Your task to perform on an android device: open app "DuckDuckGo Privacy Browser" (install if not already installed) and go to login screen Image 0: 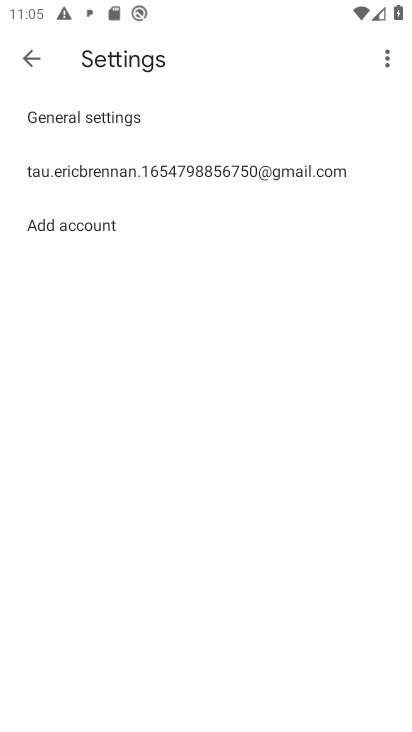
Step 0: press home button
Your task to perform on an android device: open app "DuckDuckGo Privacy Browser" (install if not already installed) and go to login screen Image 1: 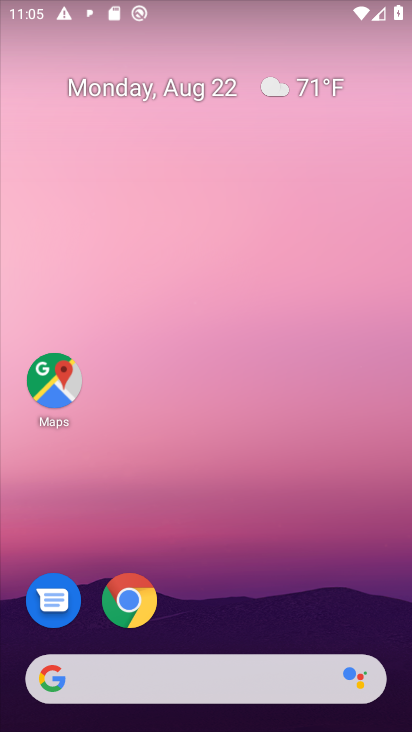
Step 1: drag from (220, 582) to (202, 193)
Your task to perform on an android device: open app "DuckDuckGo Privacy Browser" (install if not already installed) and go to login screen Image 2: 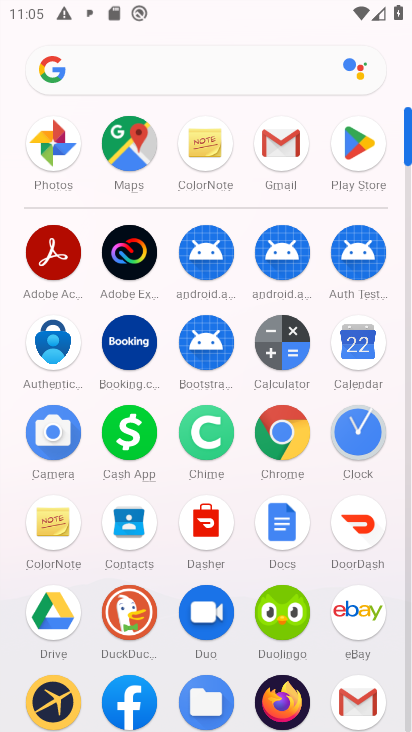
Step 2: click (340, 162)
Your task to perform on an android device: open app "DuckDuckGo Privacy Browser" (install if not already installed) and go to login screen Image 3: 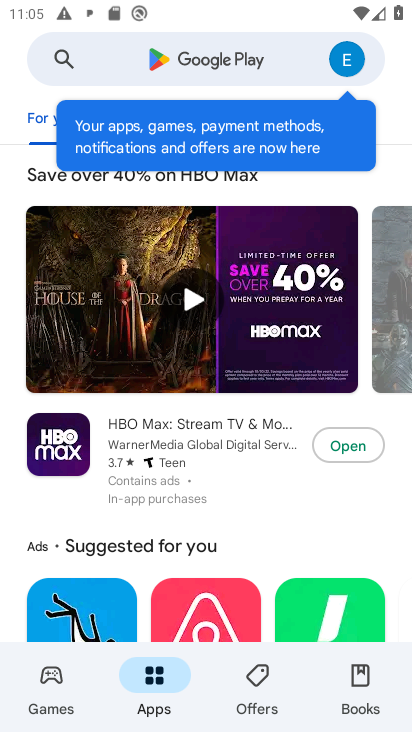
Step 3: click (249, 50)
Your task to perform on an android device: open app "DuckDuckGo Privacy Browser" (install if not already installed) and go to login screen Image 4: 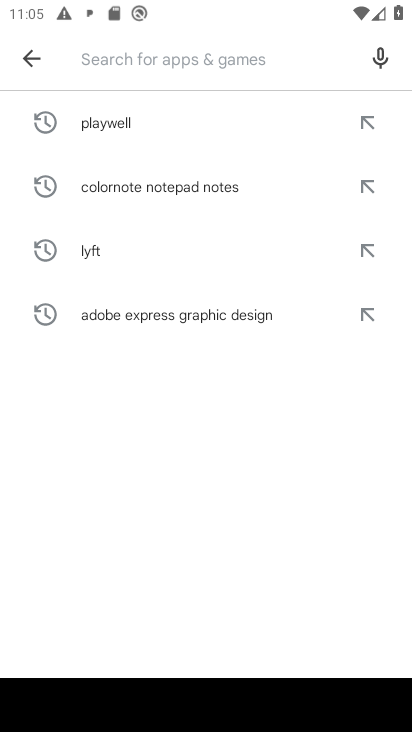
Step 4: type "DuckDuckGo Privacy Browser"
Your task to perform on an android device: open app "DuckDuckGo Privacy Browser" (install if not already installed) and go to login screen Image 5: 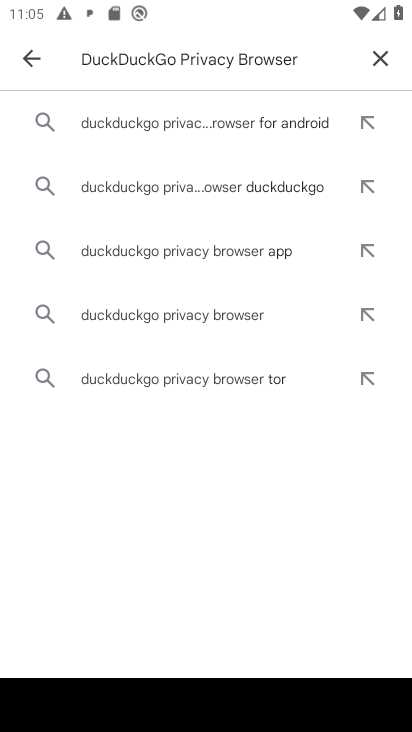
Step 5: click (209, 128)
Your task to perform on an android device: open app "DuckDuckGo Privacy Browser" (install if not already installed) and go to login screen Image 6: 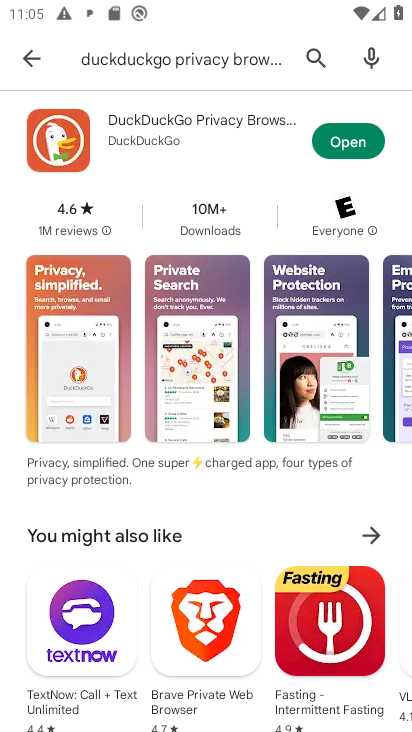
Step 6: click (339, 144)
Your task to perform on an android device: open app "DuckDuckGo Privacy Browser" (install if not already installed) and go to login screen Image 7: 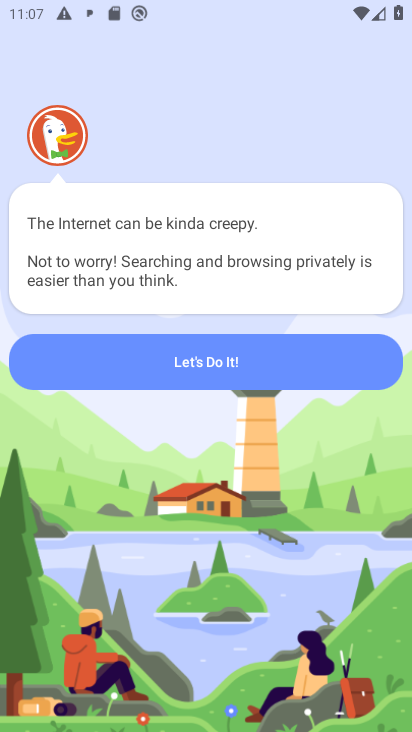
Step 7: task complete